Your task to perform on an android device: Is it going to rain tomorrow? Image 0: 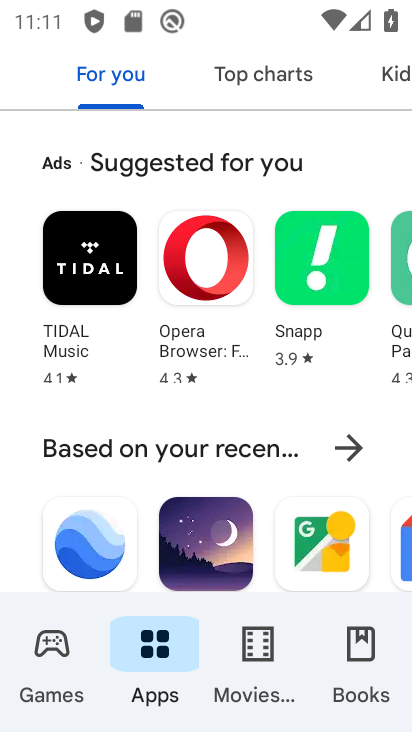
Step 0: press home button
Your task to perform on an android device: Is it going to rain tomorrow? Image 1: 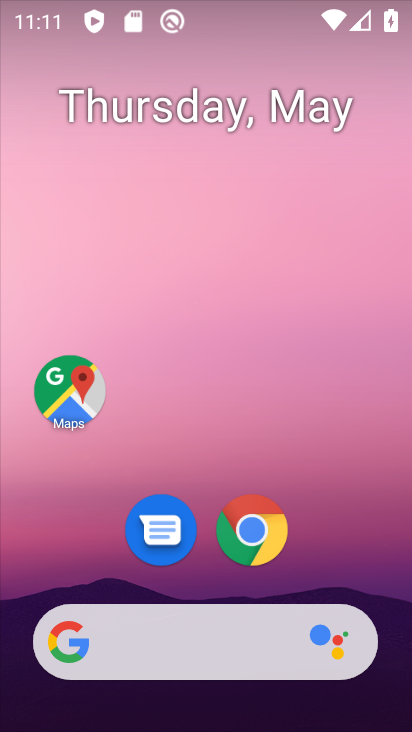
Step 1: click (129, 633)
Your task to perform on an android device: Is it going to rain tomorrow? Image 2: 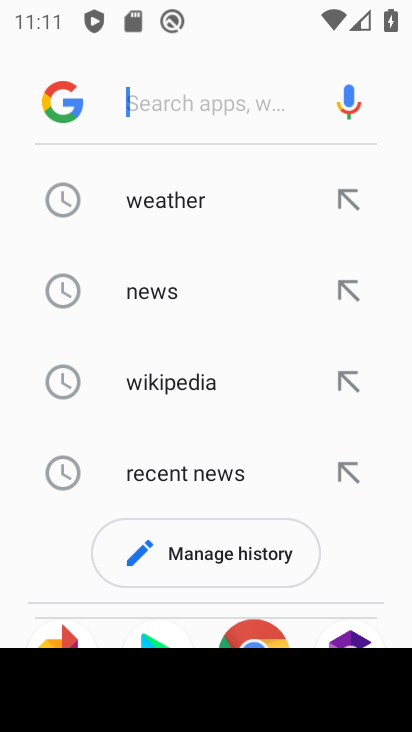
Step 2: type "Is it going to rain tomorrow?"
Your task to perform on an android device: Is it going to rain tomorrow? Image 3: 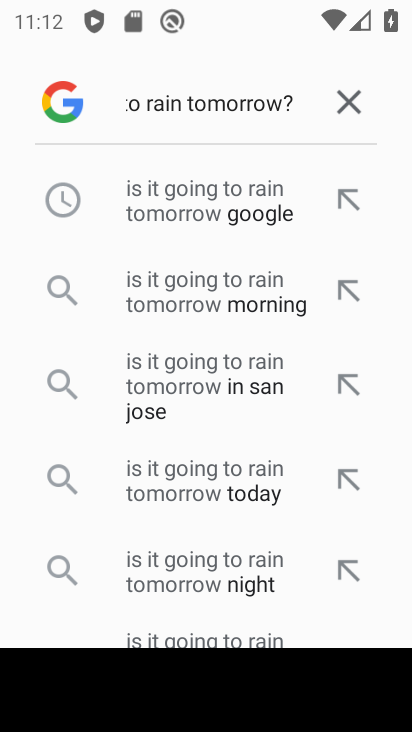
Step 3: click (226, 183)
Your task to perform on an android device: Is it going to rain tomorrow? Image 4: 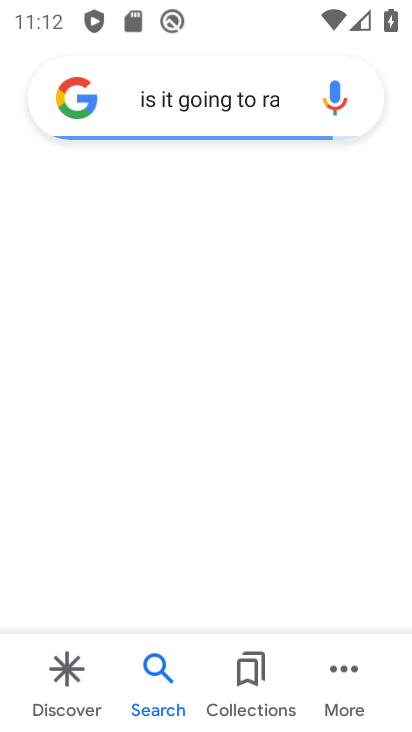
Step 4: task complete